Your task to perform on an android device: show emergency info Image 0: 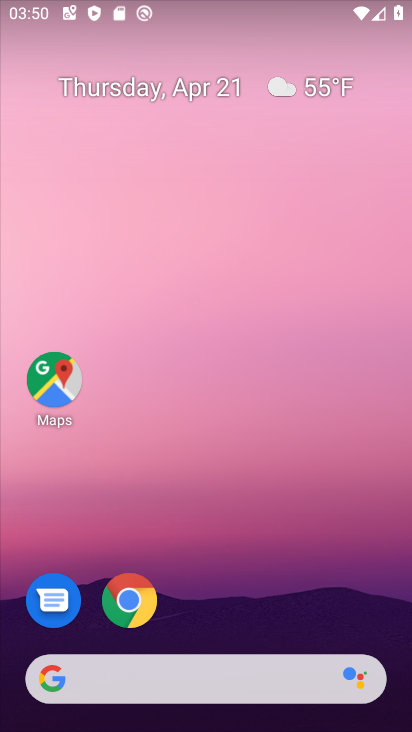
Step 0: drag from (305, 561) to (320, 10)
Your task to perform on an android device: show emergency info Image 1: 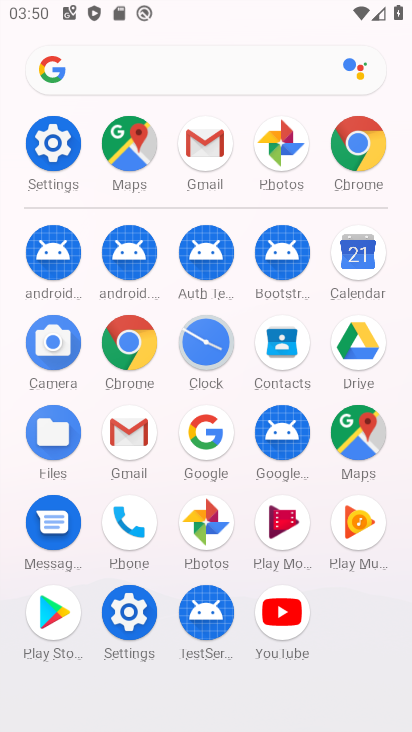
Step 1: click (43, 145)
Your task to perform on an android device: show emergency info Image 2: 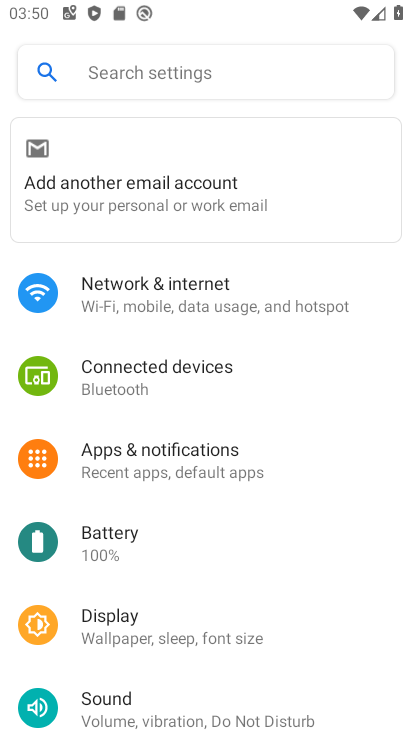
Step 2: drag from (164, 396) to (146, 333)
Your task to perform on an android device: show emergency info Image 3: 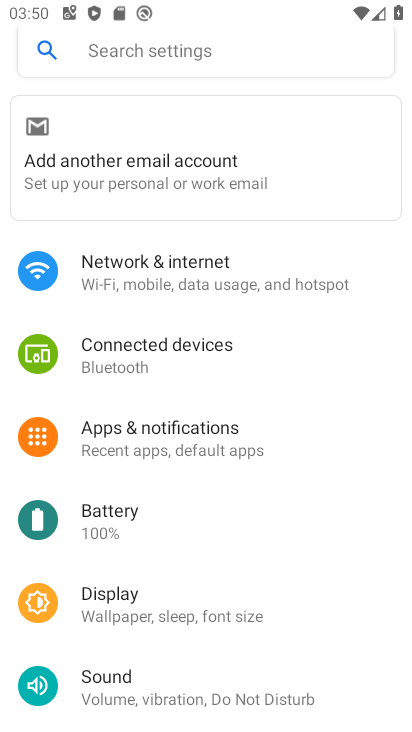
Step 3: drag from (161, 433) to (133, 348)
Your task to perform on an android device: show emergency info Image 4: 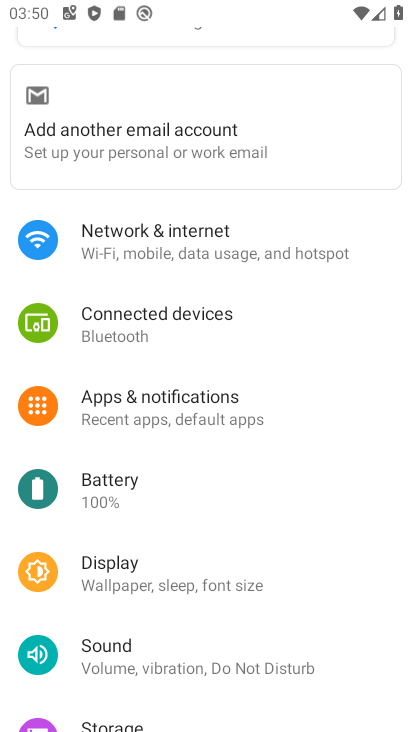
Step 4: drag from (138, 424) to (128, 332)
Your task to perform on an android device: show emergency info Image 5: 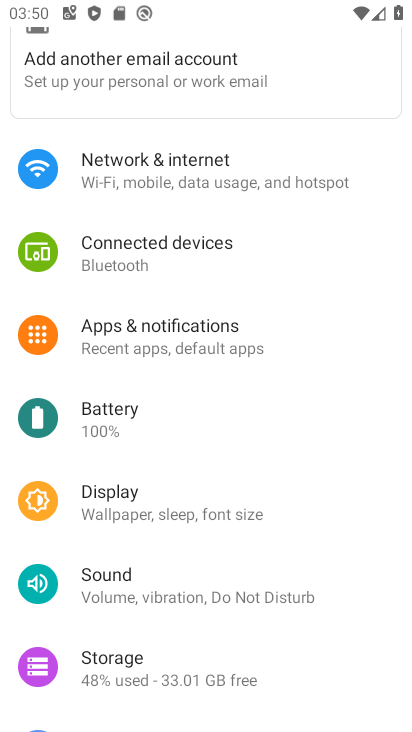
Step 5: drag from (139, 414) to (137, 346)
Your task to perform on an android device: show emergency info Image 6: 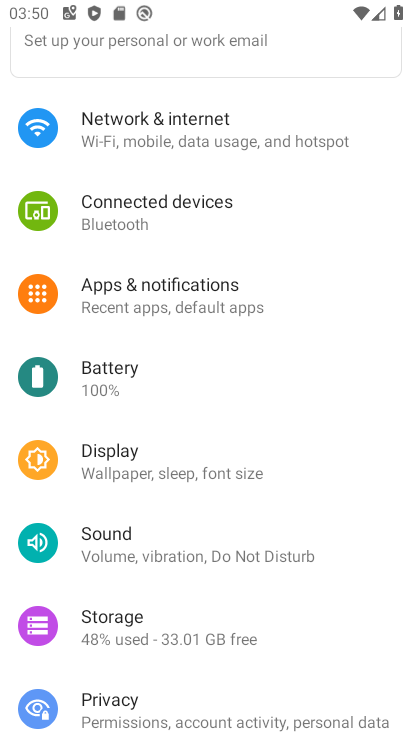
Step 6: drag from (152, 422) to (148, 339)
Your task to perform on an android device: show emergency info Image 7: 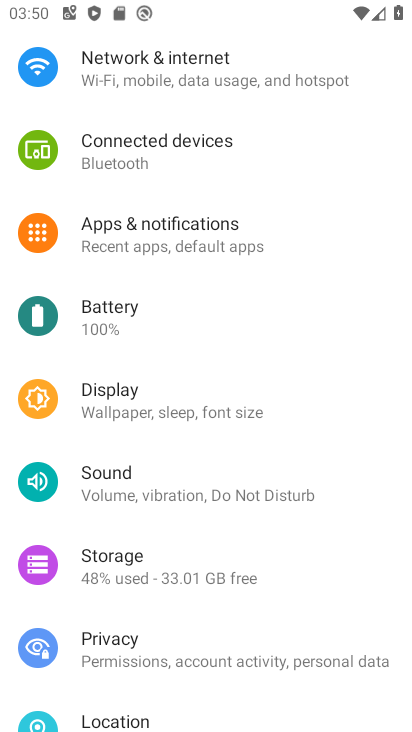
Step 7: drag from (165, 420) to (166, 327)
Your task to perform on an android device: show emergency info Image 8: 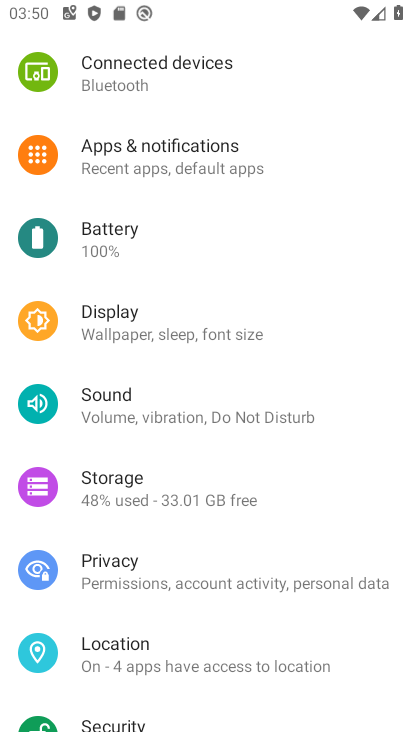
Step 8: drag from (179, 410) to (177, 331)
Your task to perform on an android device: show emergency info Image 9: 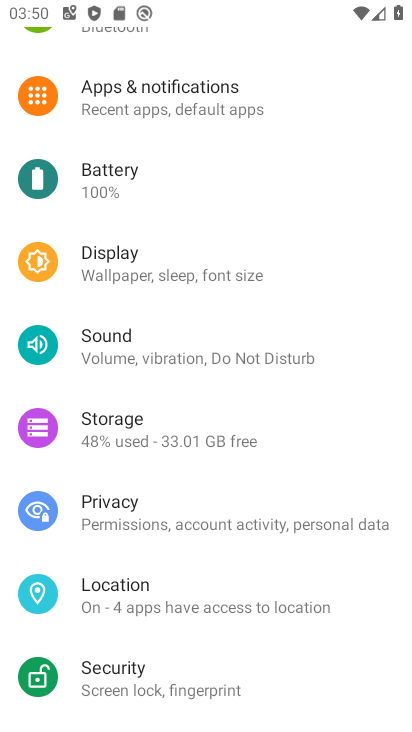
Step 9: drag from (188, 388) to (189, 302)
Your task to perform on an android device: show emergency info Image 10: 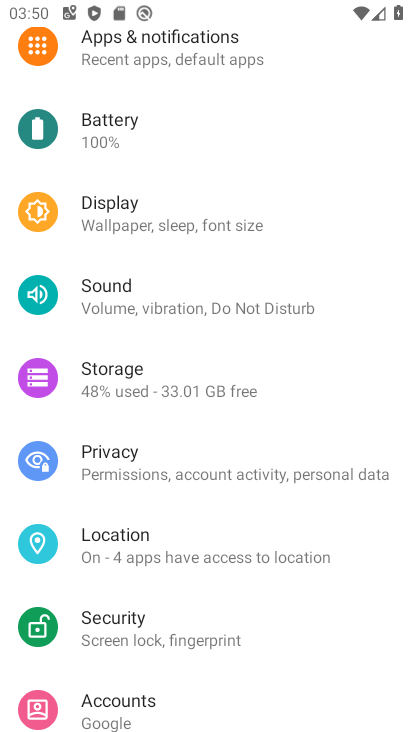
Step 10: drag from (180, 384) to (174, 308)
Your task to perform on an android device: show emergency info Image 11: 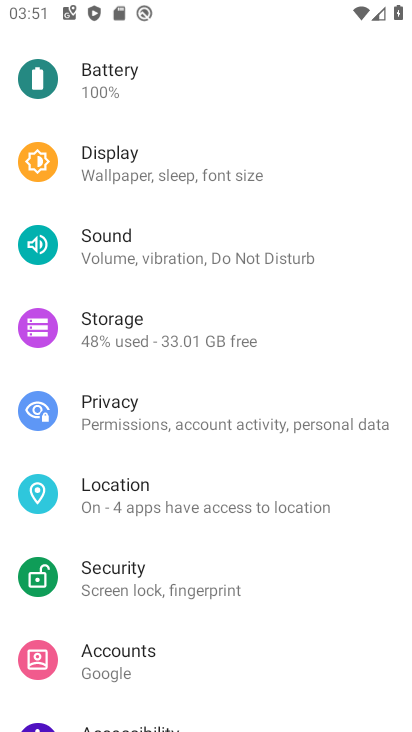
Step 11: drag from (182, 370) to (196, 281)
Your task to perform on an android device: show emergency info Image 12: 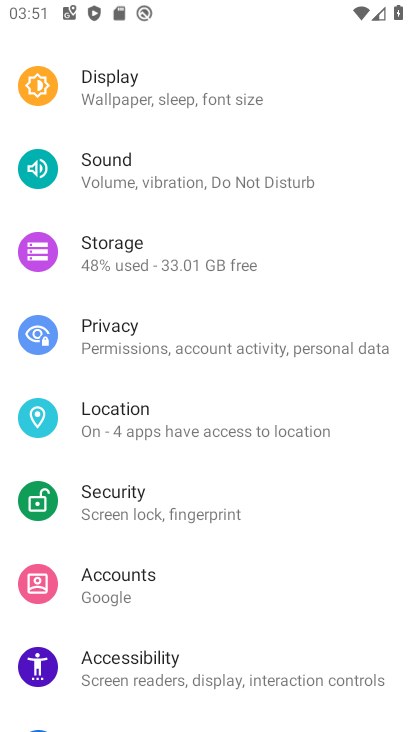
Step 12: drag from (179, 406) to (186, 304)
Your task to perform on an android device: show emergency info Image 13: 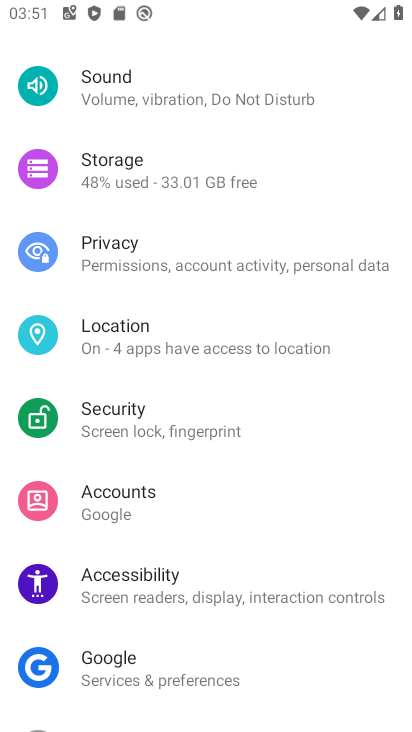
Step 13: drag from (203, 448) to (184, 350)
Your task to perform on an android device: show emergency info Image 14: 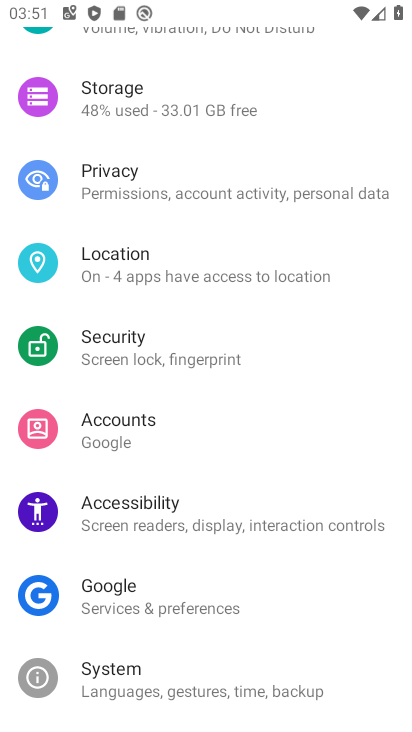
Step 14: drag from (185, 482) to (189, 396)
Your task to perform on an android device: show emergency info Image 15: 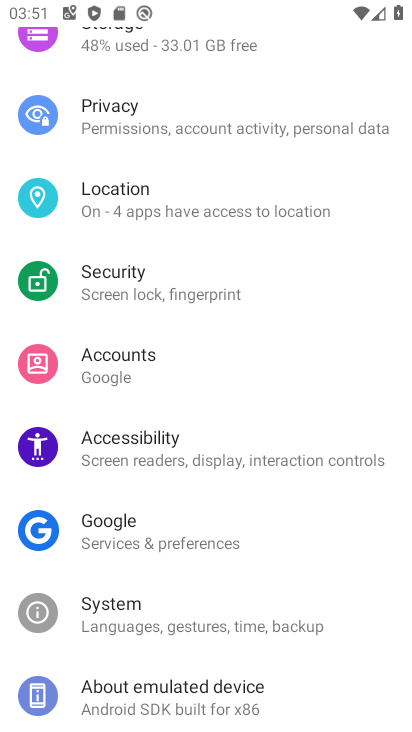
Step 15: drag from (197, 487) to (215, 363)
Your task to perform on an android device: show emergency info Image 16: 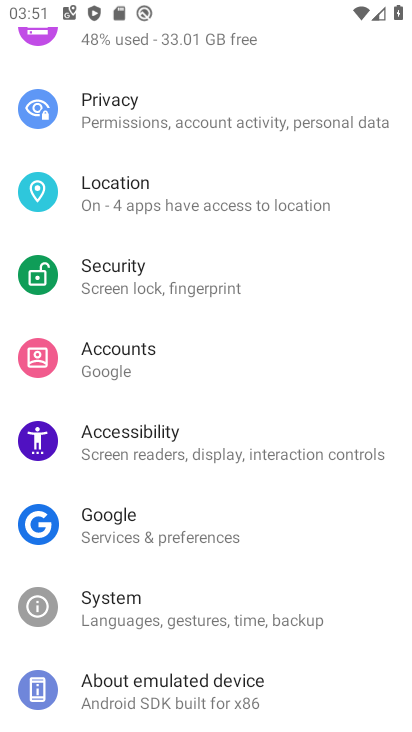
Step 16: click (259, 696)
Your task to perform on an android device: show emergency info Image 17: 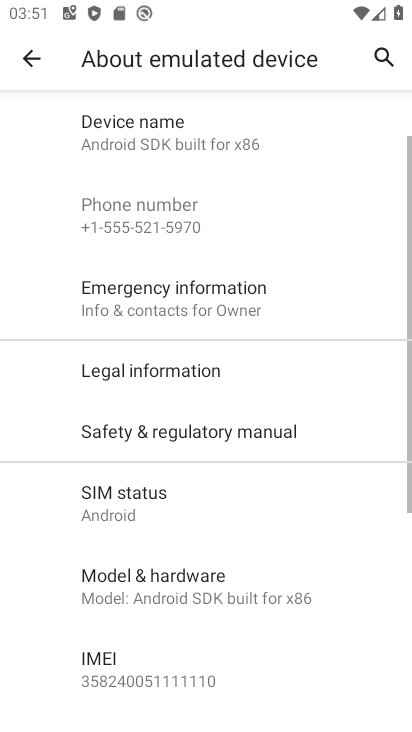
Step 17: click (248, 314)
Your task to perform on an android device: show emergency info Image 18: 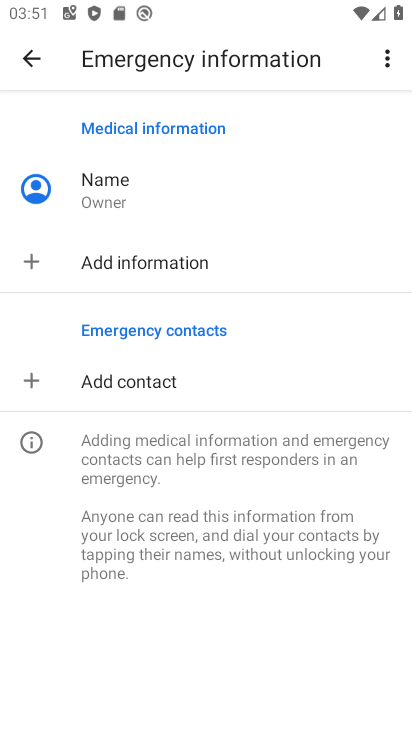
Step 18: task complete